Your task to perform on an android device: Toggle the flashlight Image 0: 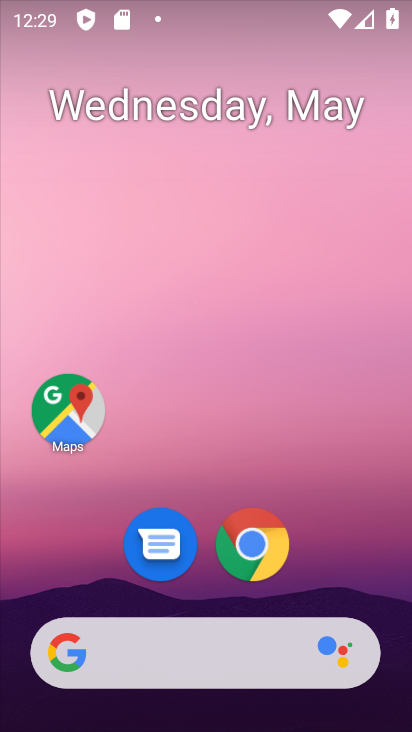
Step 0: drag from (359, 577) to (300, 517)
Your task to perform on an android device: Toggle the flashlight Image 1: 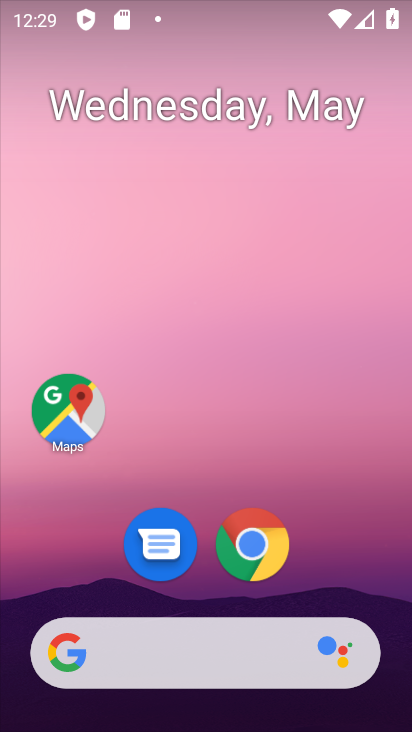
Step 1: task complete